Your task to perform on an android device: Search for Italian restaurants on Maps Image 0: 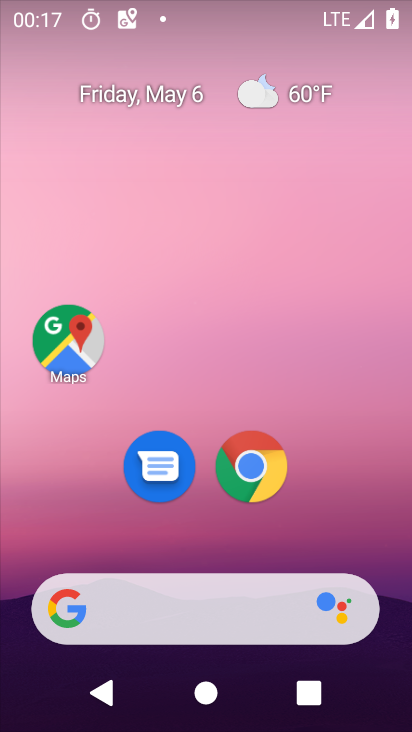
Step 0: click (70, 352)
Your task to perform on an android device: Search for Italian restaurants on Maps Image 1: 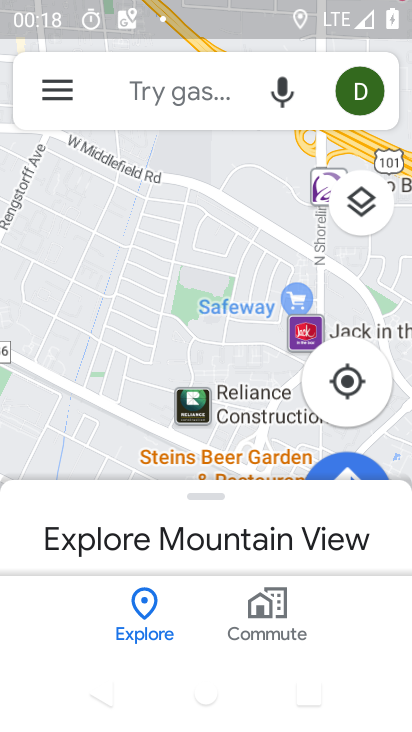
Step 1: click (174, 88)
Your task to perform on an android device: Search for Italian restaurants on Maps Image 2: 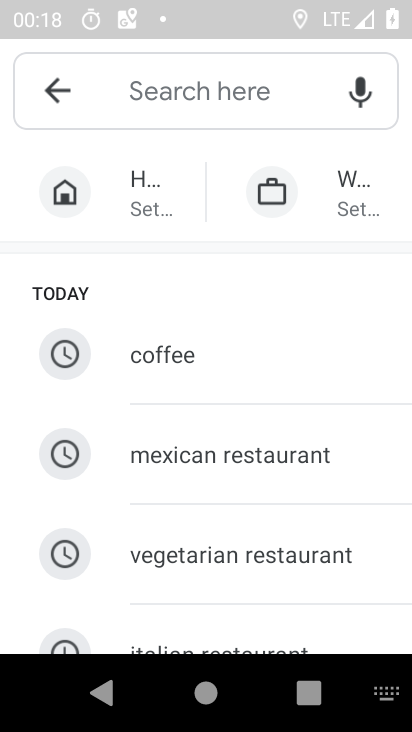
Step 2: drag from (182, 592) to (207, 338)
Your task to perform on an android device: Search for Italian restaurants on Maps Image 3: 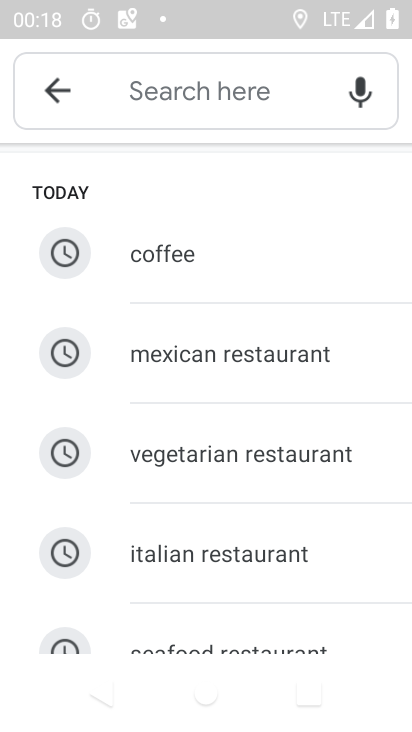
Step 3: click (206, 562)
Your task to perform on an android device: Search for Italian restaurants on Maps Image 4: 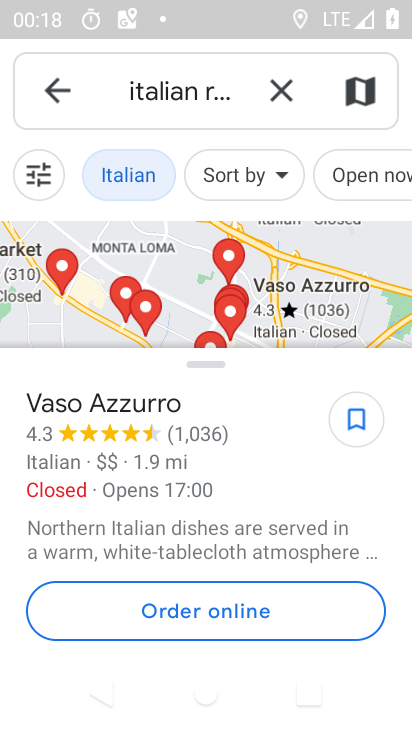
Step 4: task complete